Your task to perform on an android device: Go to notification settings Image 0: 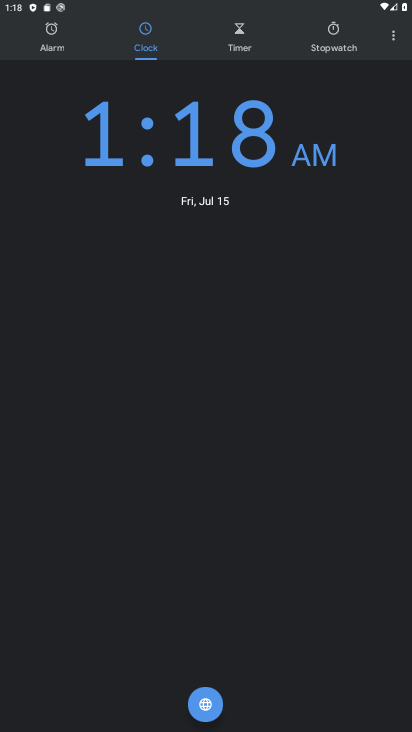
Step 0: press home button
Your task to perform on an android device: Go to notification settings Image 1: 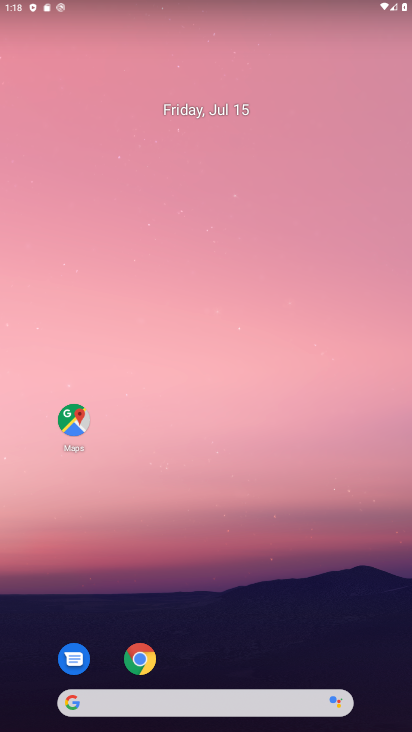
Step 1: drag from (242, 663) to (251, 363)
Your task to perform on an android device: Go to notification settings Image 2: 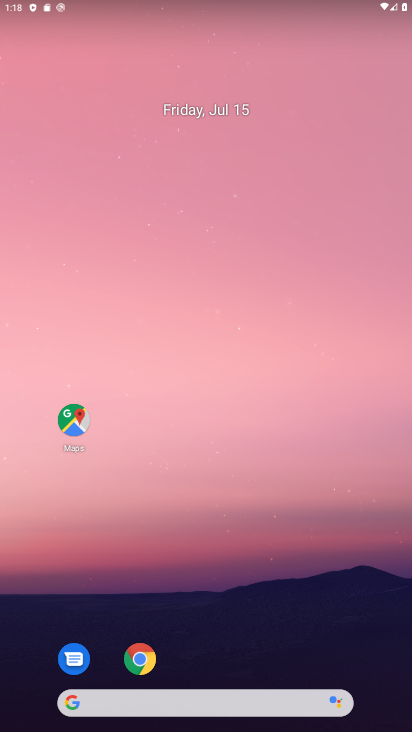
Step 2: drag from (250, 677) to (265, 223)
Your task to perform on an android device: Go to notification settings Image 3: 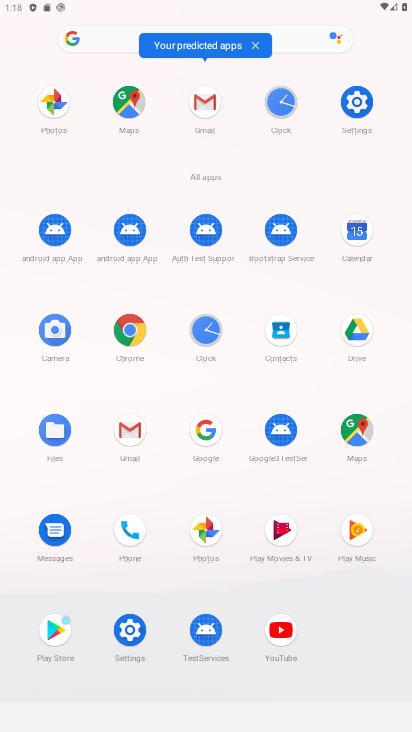
Step 3: click (142, 640)
Your task to perform on an android device: Go to notification settings Image 4: 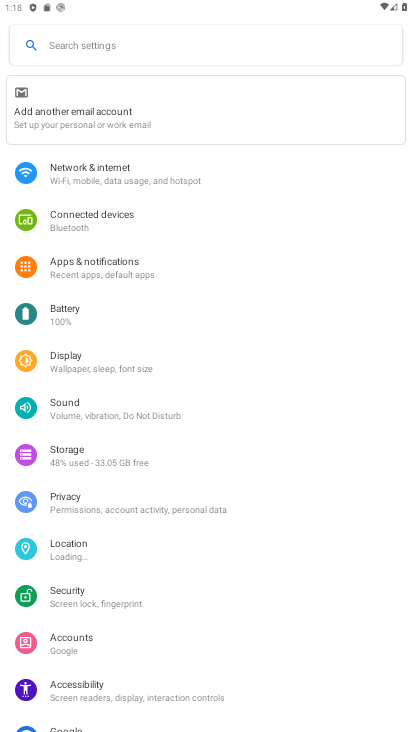
Step 4: click (123, 277)
Your task to perform on an android device: Go to notification settings Image 5: 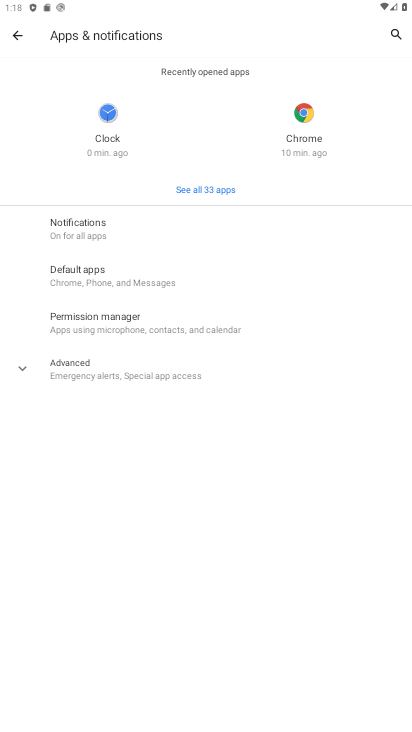
Step 5: click (135, 218)
Your task to perform on an android device: Go to notification settings Image 6: 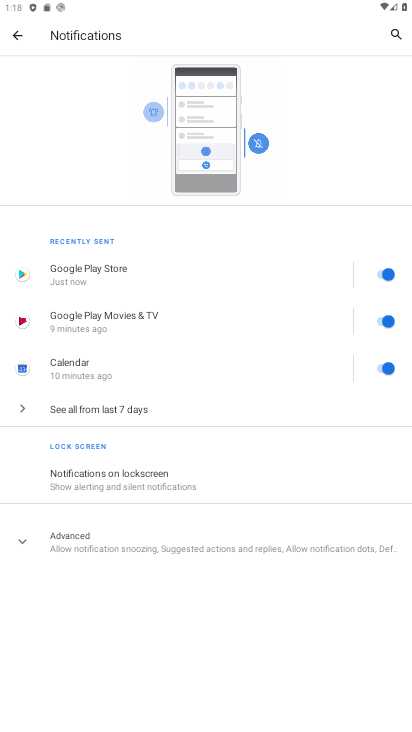
Step 6: task complete